Your task to perform on an android device: Open maps Image 0: 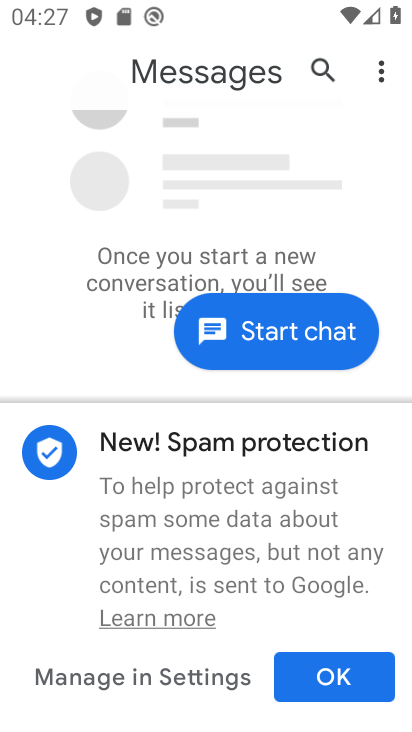
Step 0: press home button
Your task to perform on an android device: Open maps Image 1: 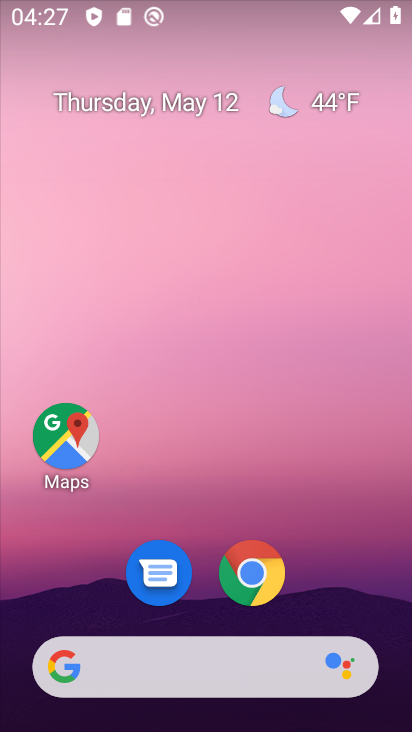
Step 1: click (65, 433)
Your task to perform on an android device: Open maps Image 2: 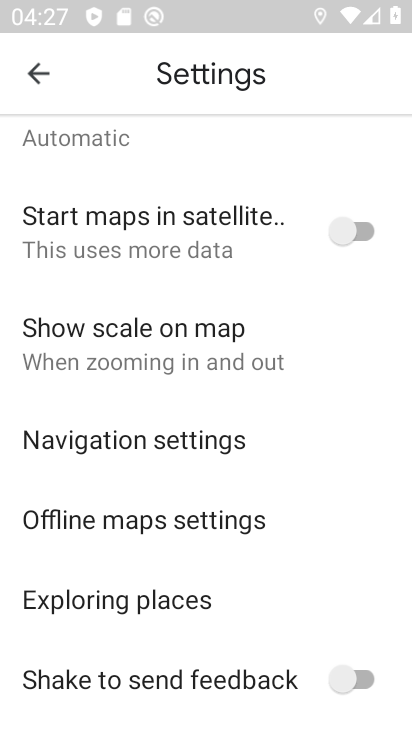
Step 2: press back button
Your task to perform on an android device: Open maps Image 3: 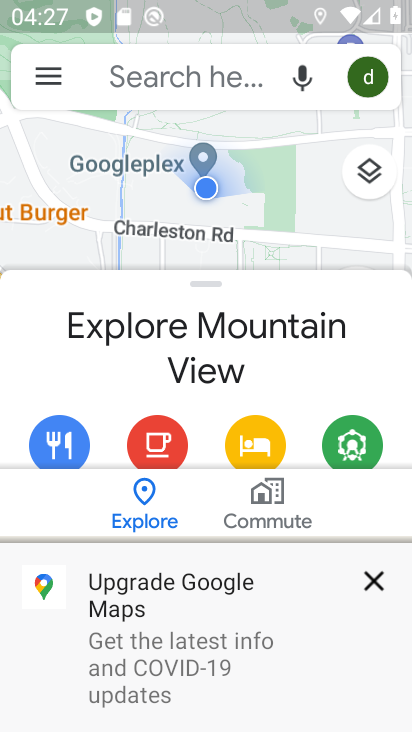
Step 3: click (371, 580)
Your task to perform on an android device: Open maps Image 4: 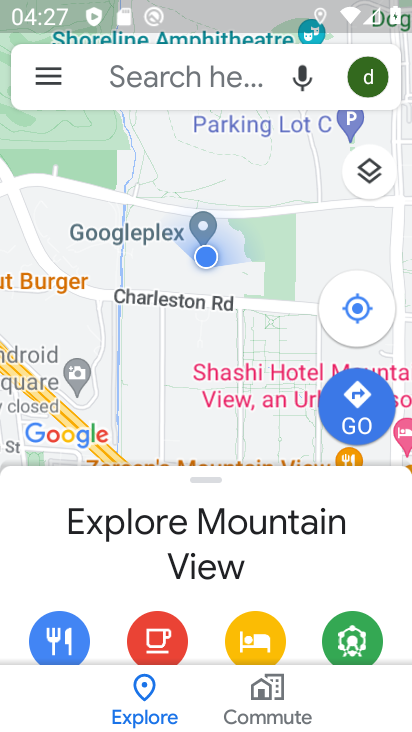
Step 4: task complete